Your task to perform on an android device: What's the news about the US? Image 0: 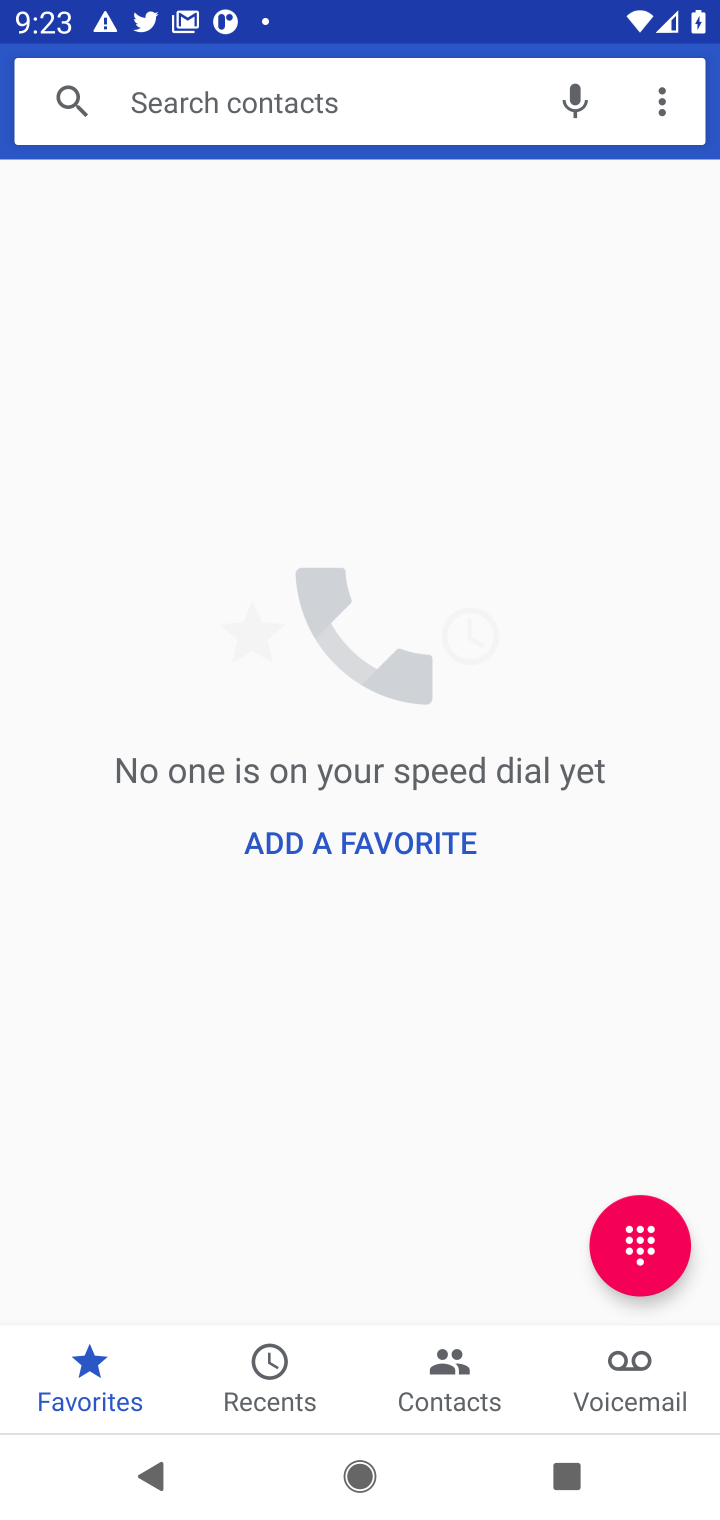
Step 0: press home button
Your task to perform on an android device: What's the news about the US? Image 1: 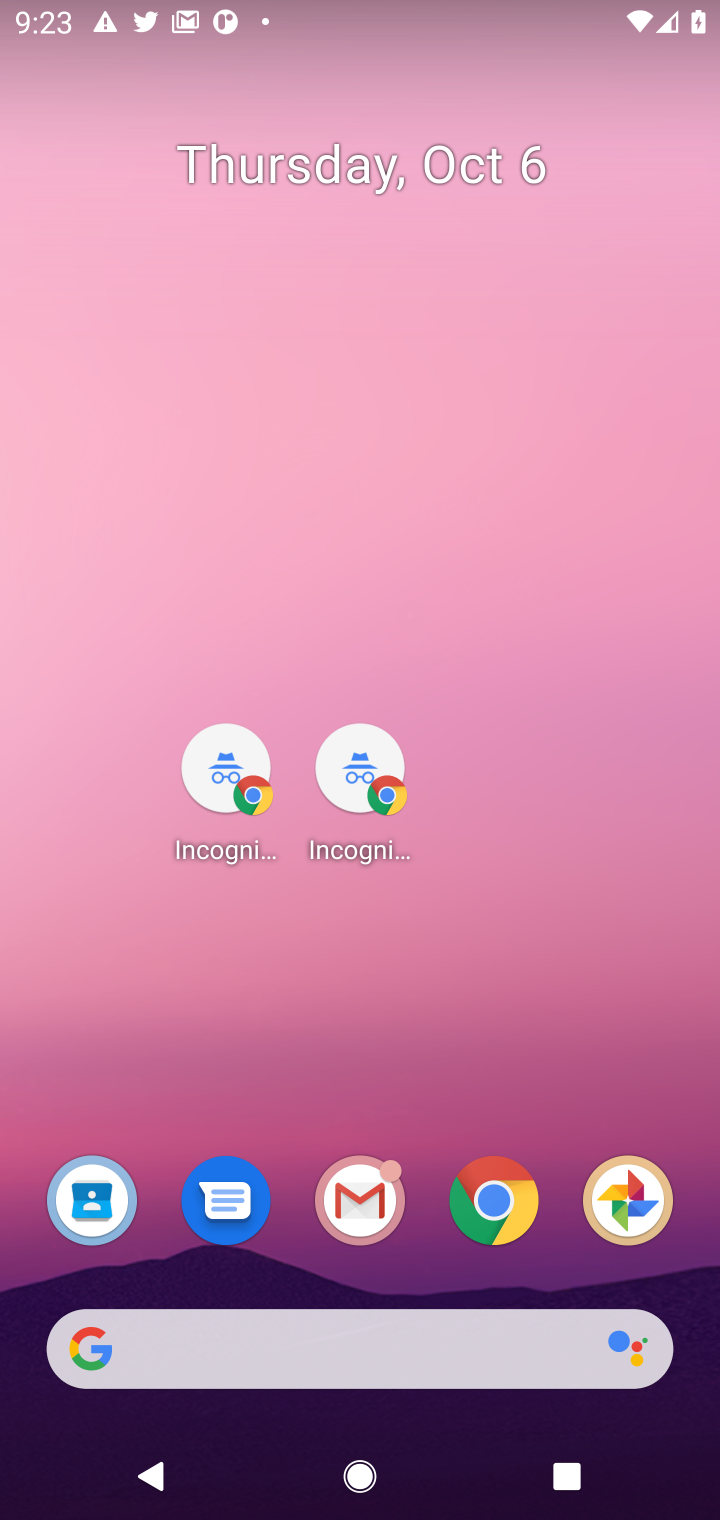
Step 1: click (494, 1211)
Your task to perform on an android device: What's the news about the US? Image 2: 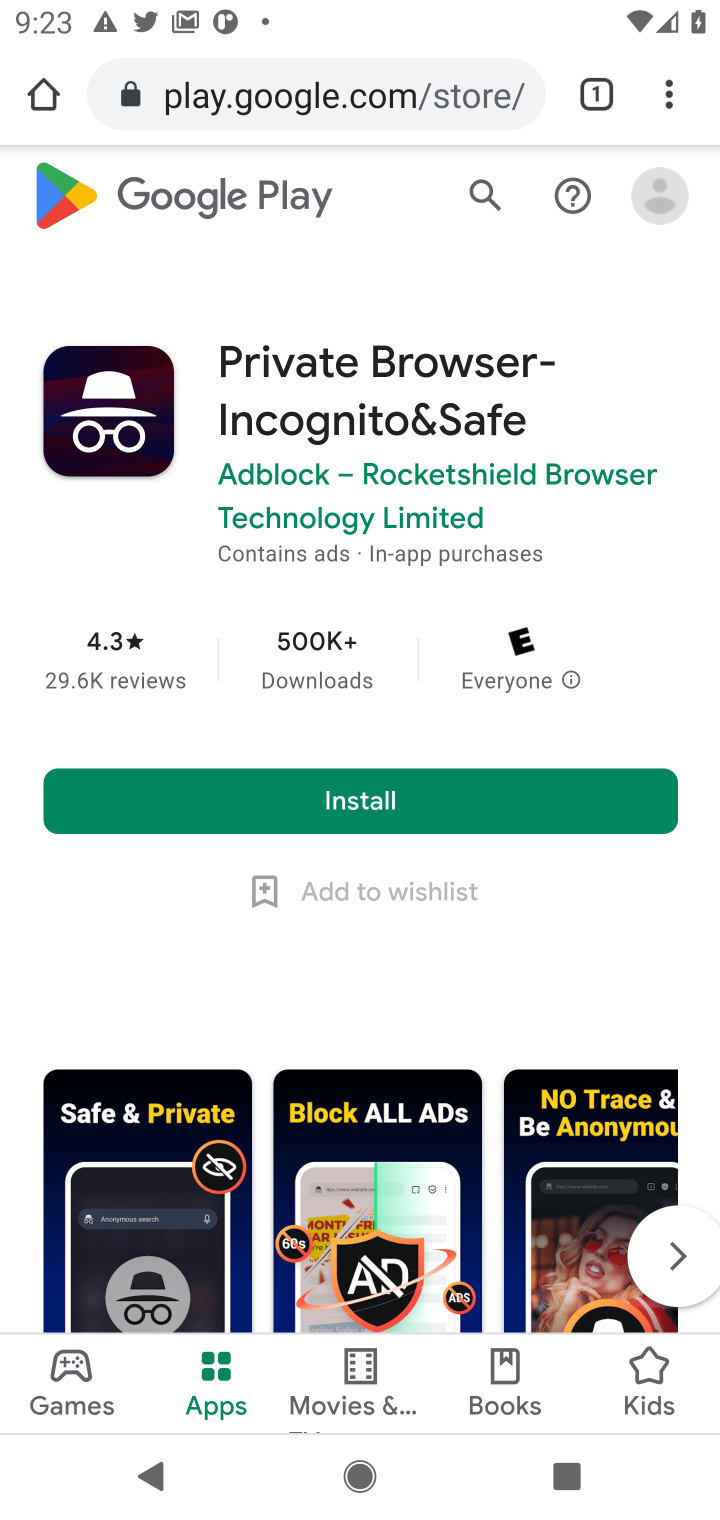
Step 2: click (412, 87)
Your task to perform on an android device: What's the news about the US? Image 3: 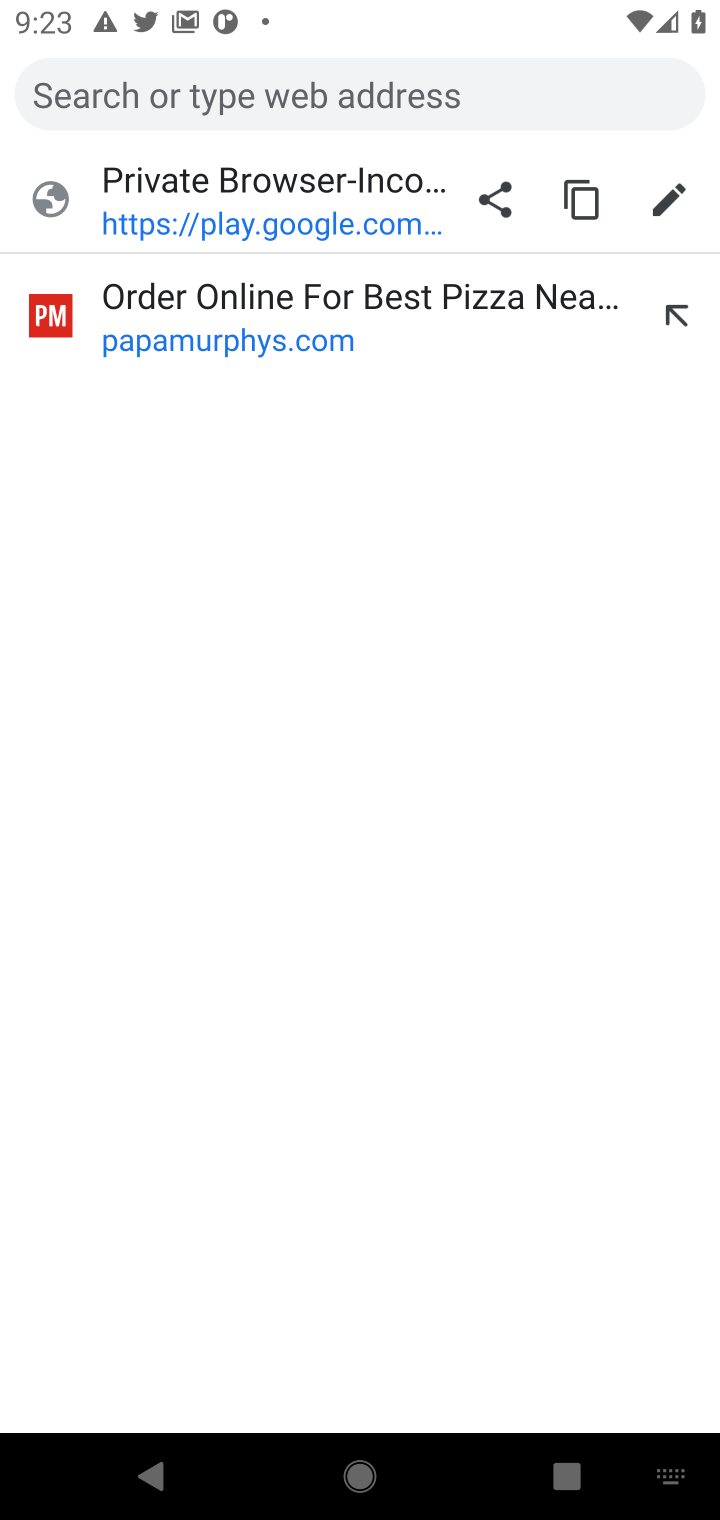
Step 3: type "whats the new about the us"
Your task to perform on an android device: What's the news about the US? Image 4: 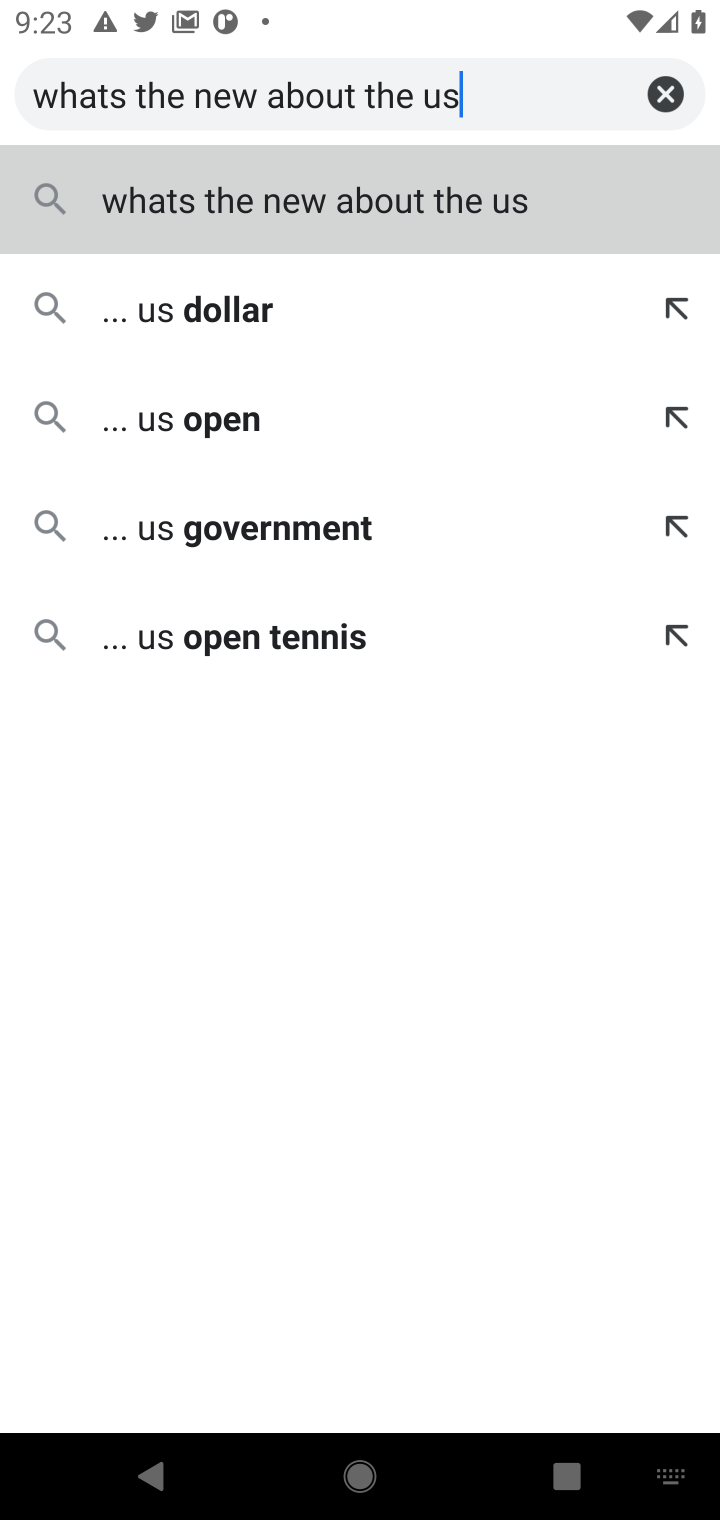
Step 4: click (155, 216)
Your task to perform on an android device: What's the news about the US? Image 5: 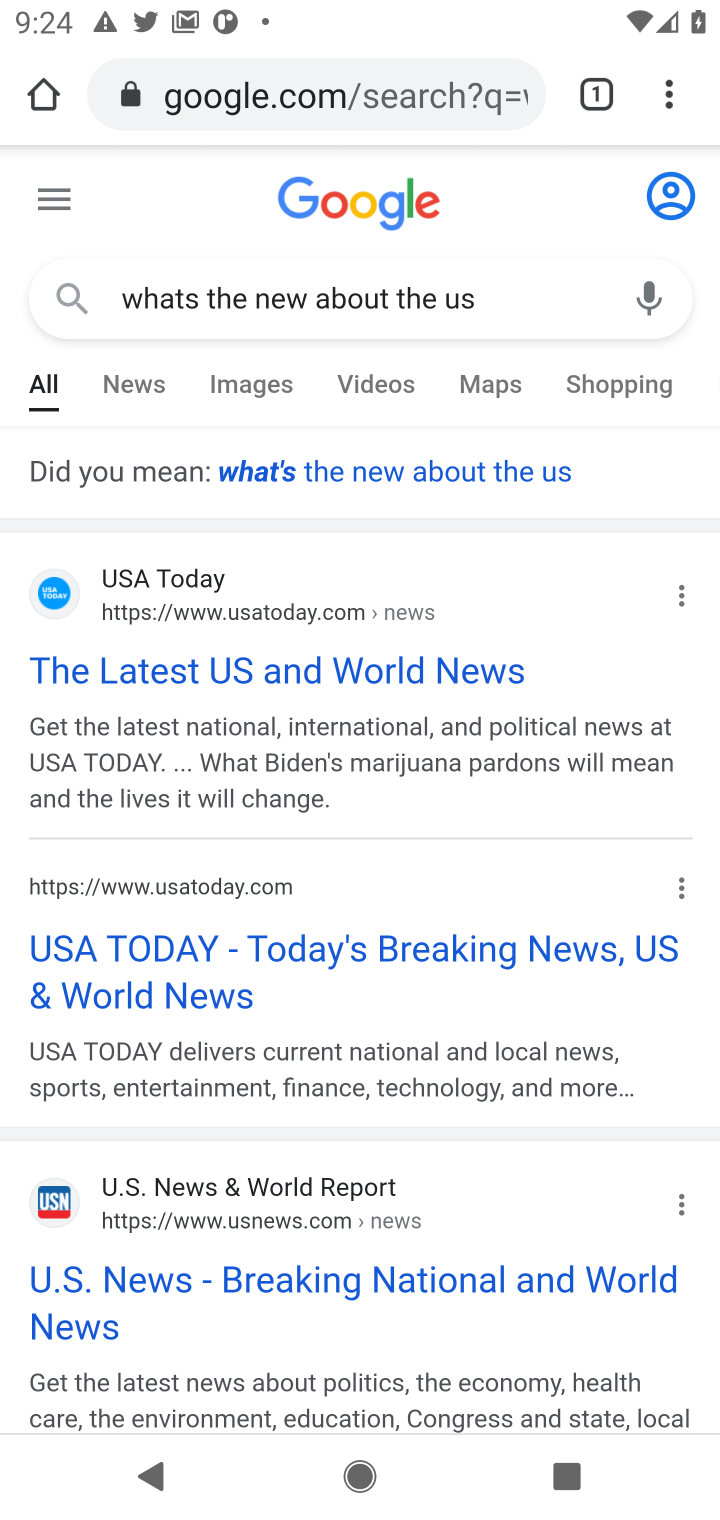
Step 5: click (137, 954)
Your task to perform on an android device: What's the news about the US? Image 6: 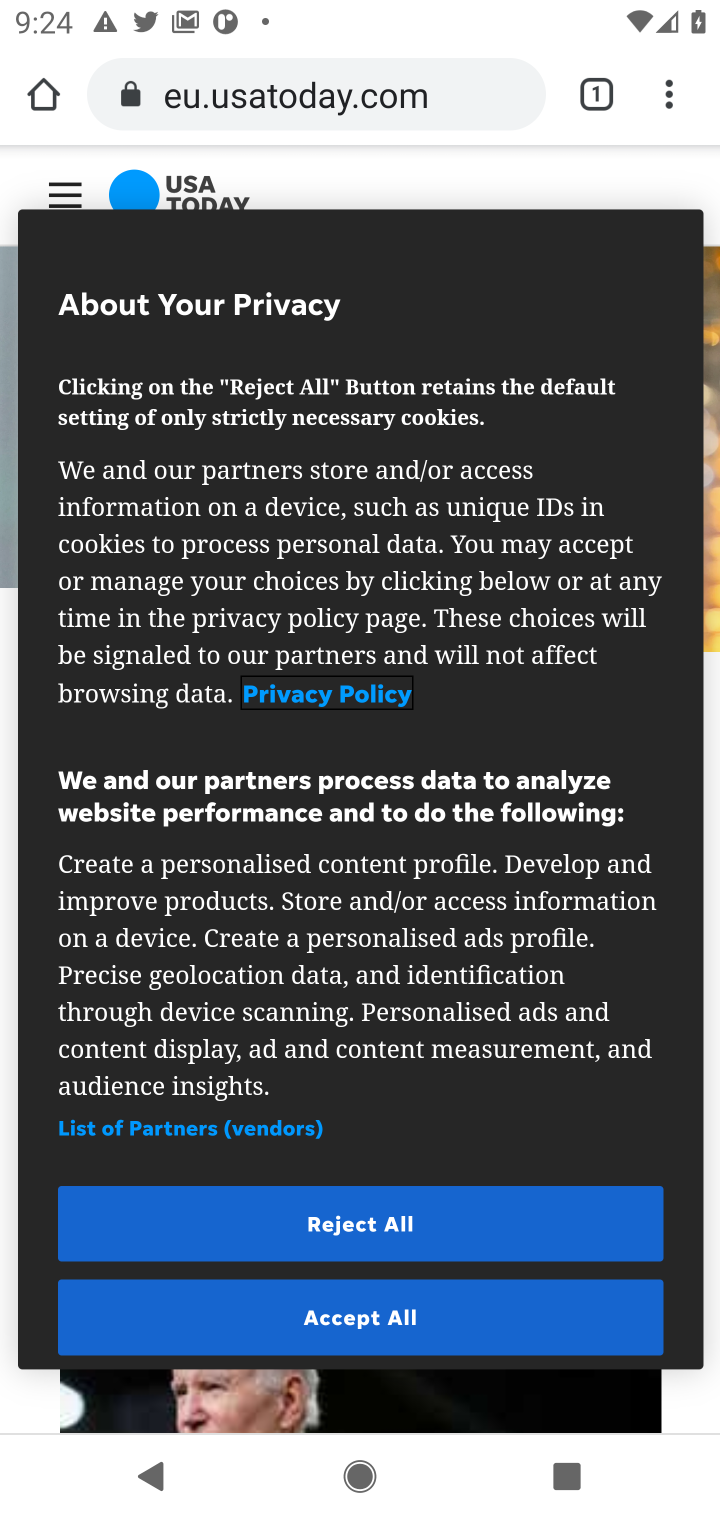
Step 6: click (344, 1236)
Your task to perform on an android device: What's the news about the US? Image 7: 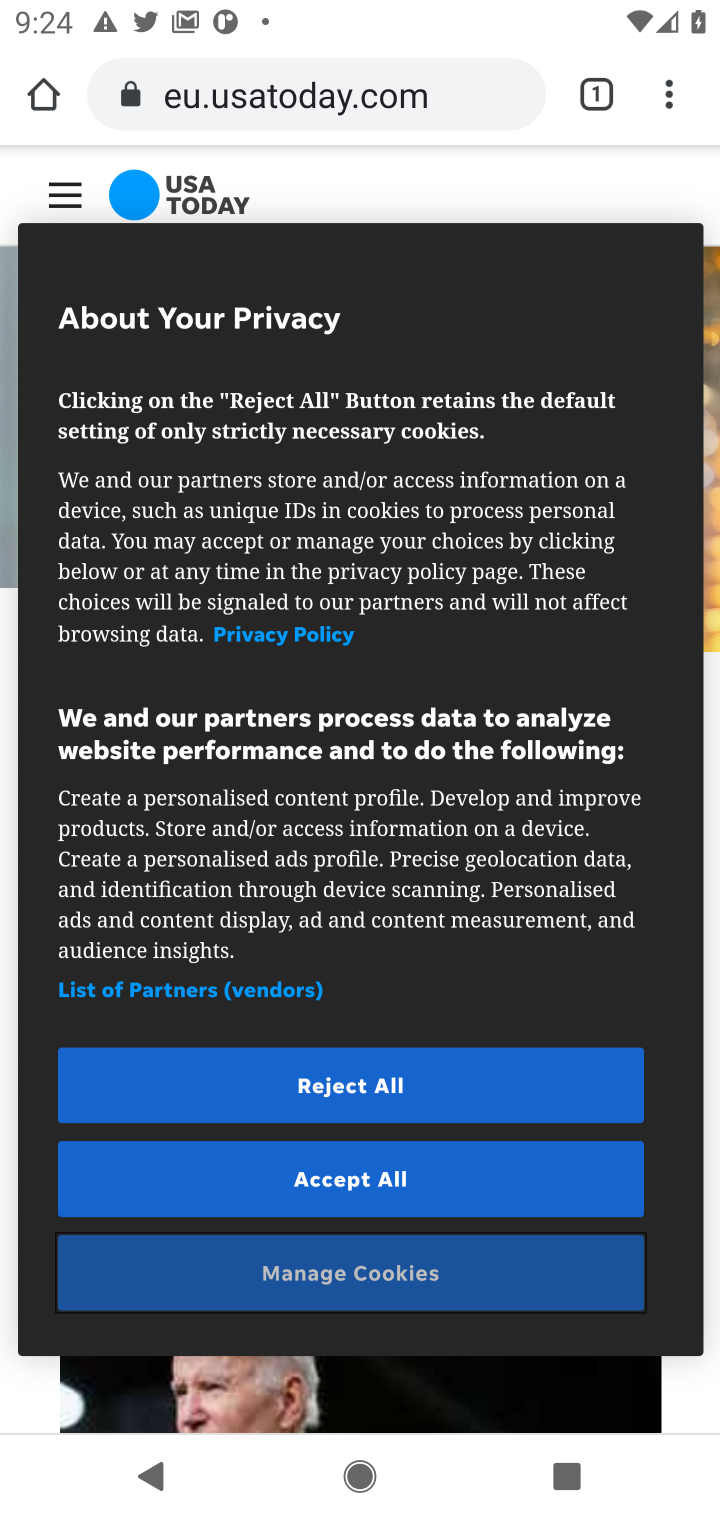
Step 7: click (402, 1084)
Your task to perform on an android device: What's the news about the US? Image 8: 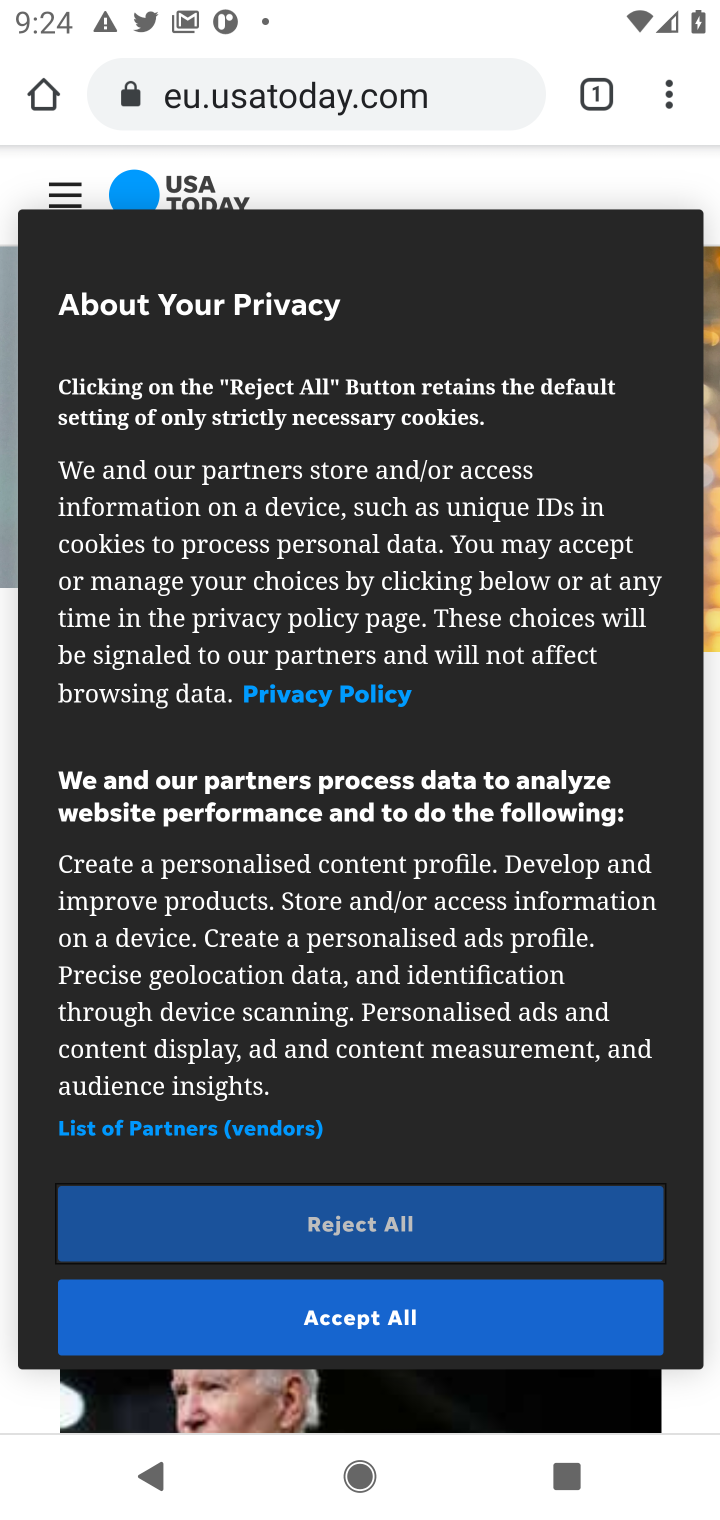
Step 8: click (286, 1329)
Your task to perform on an android device: What's the news about the US? Image 9: 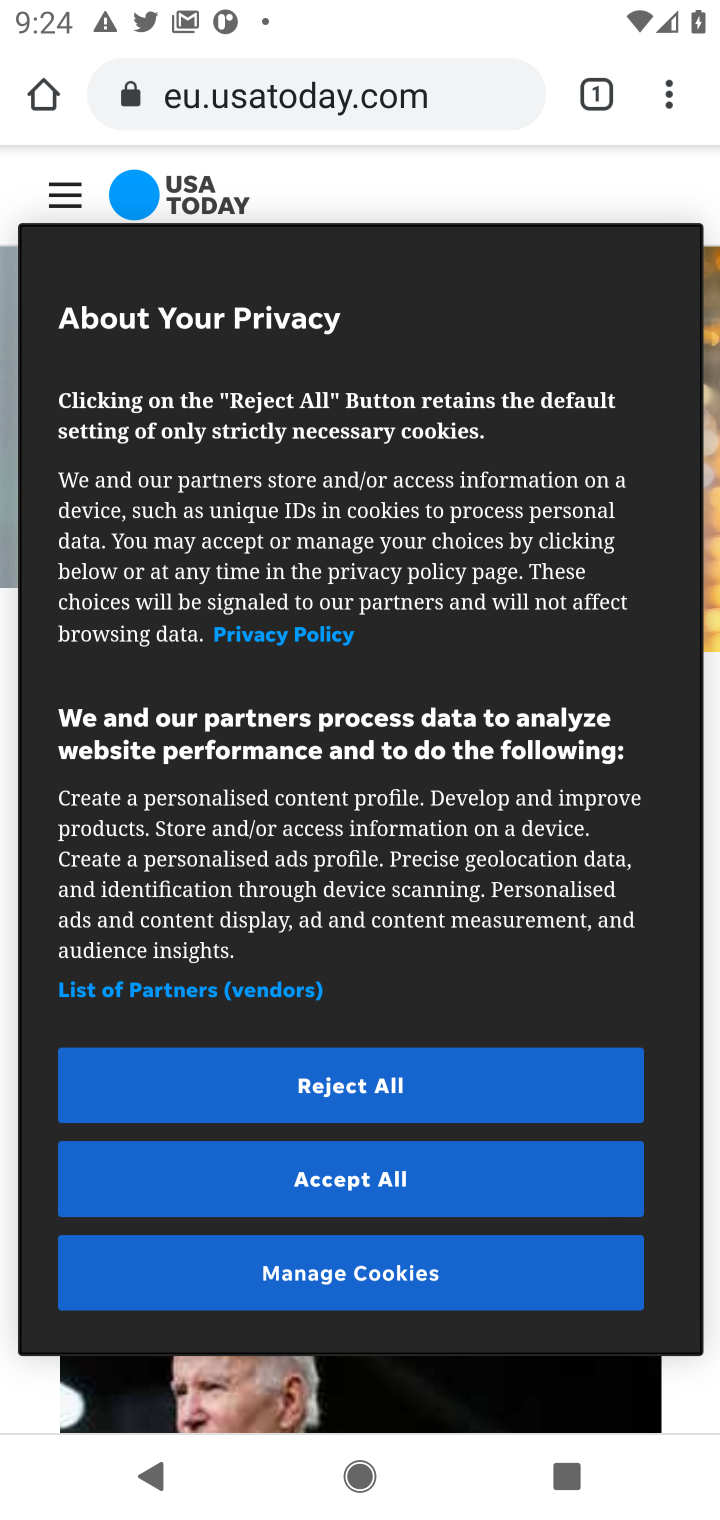
Step 9: click (286, 1282)
Your task to perform on an android device: What's the news about the US? Image 10: 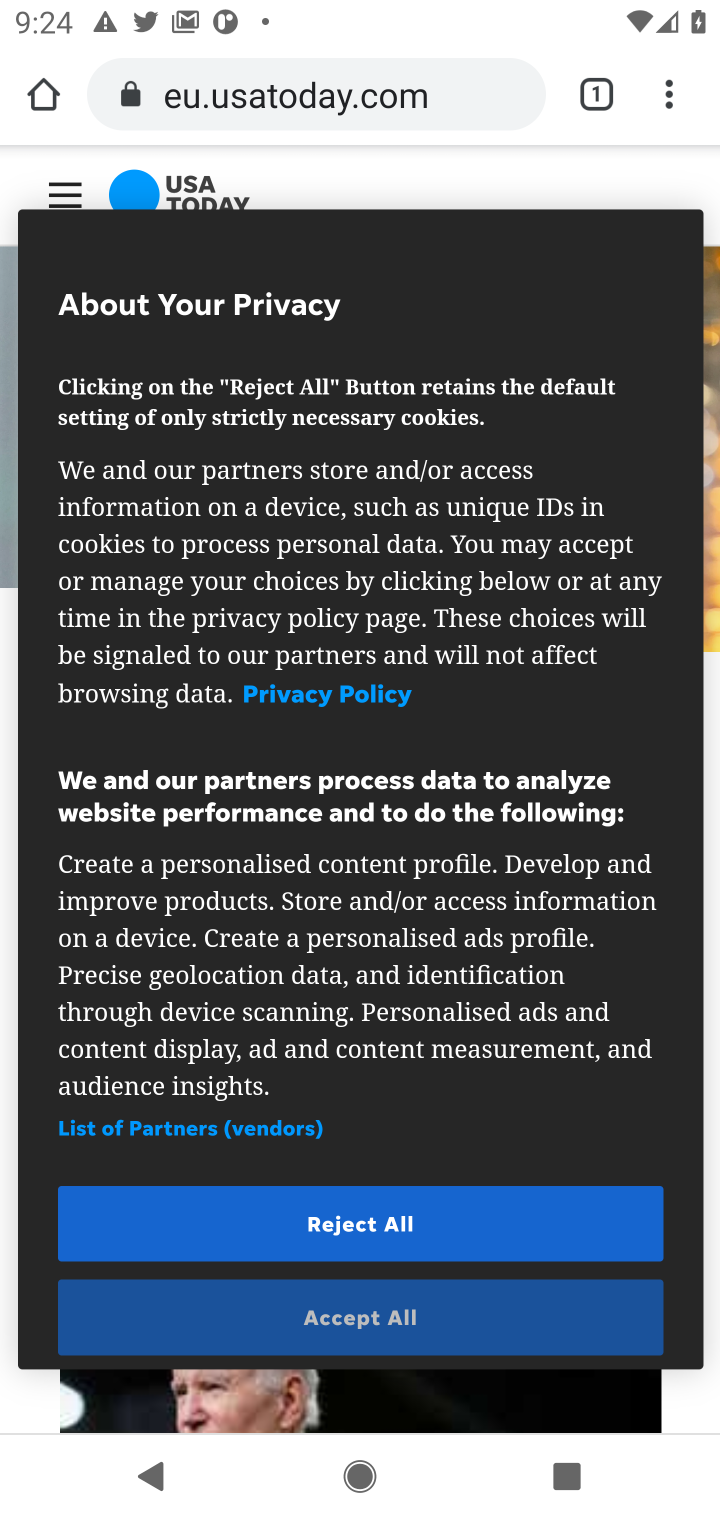
Step 10: click (342, 1325)
Your task to perform on an android device: What's the news about the US? Image 11: 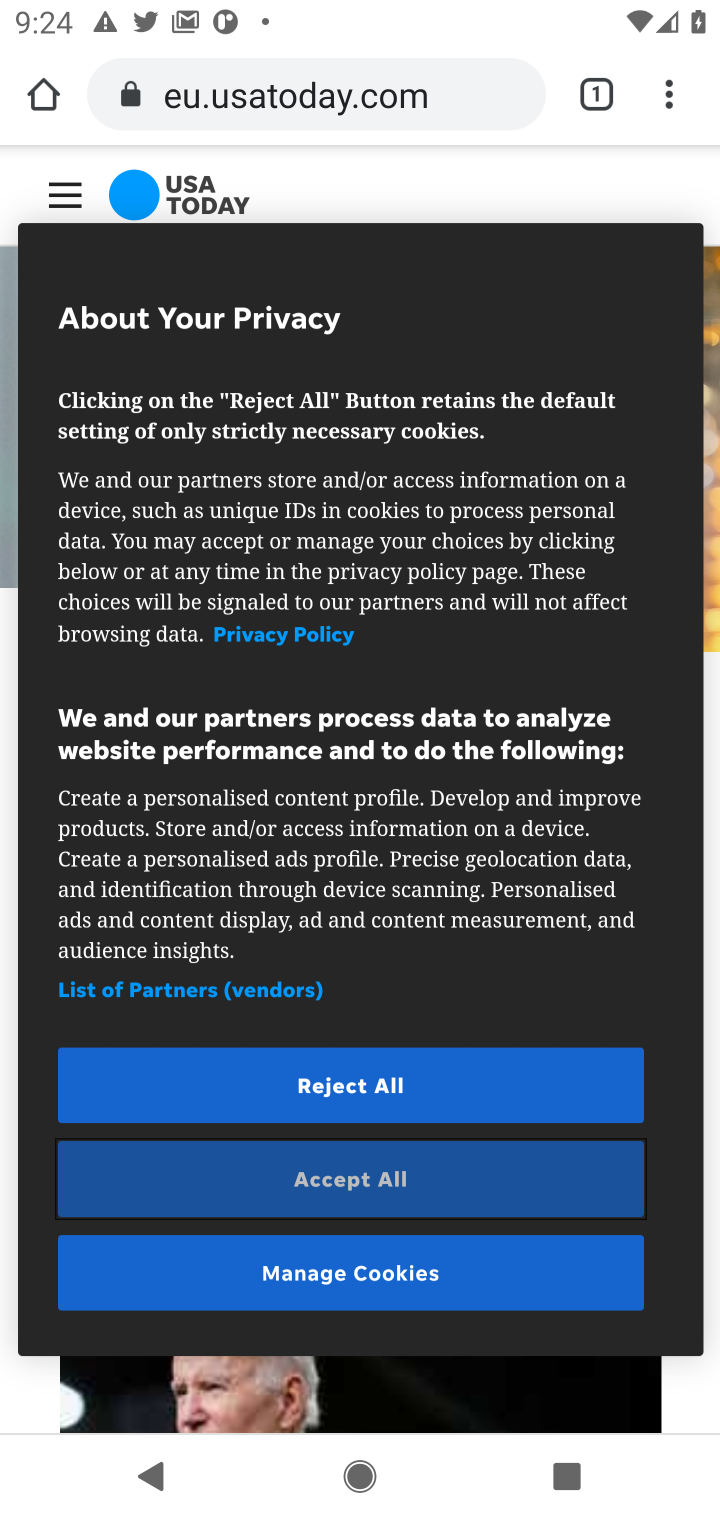
Step 11: click (399, 1098)
Your task to perform on an android device: What's the news about the US? Image 12: 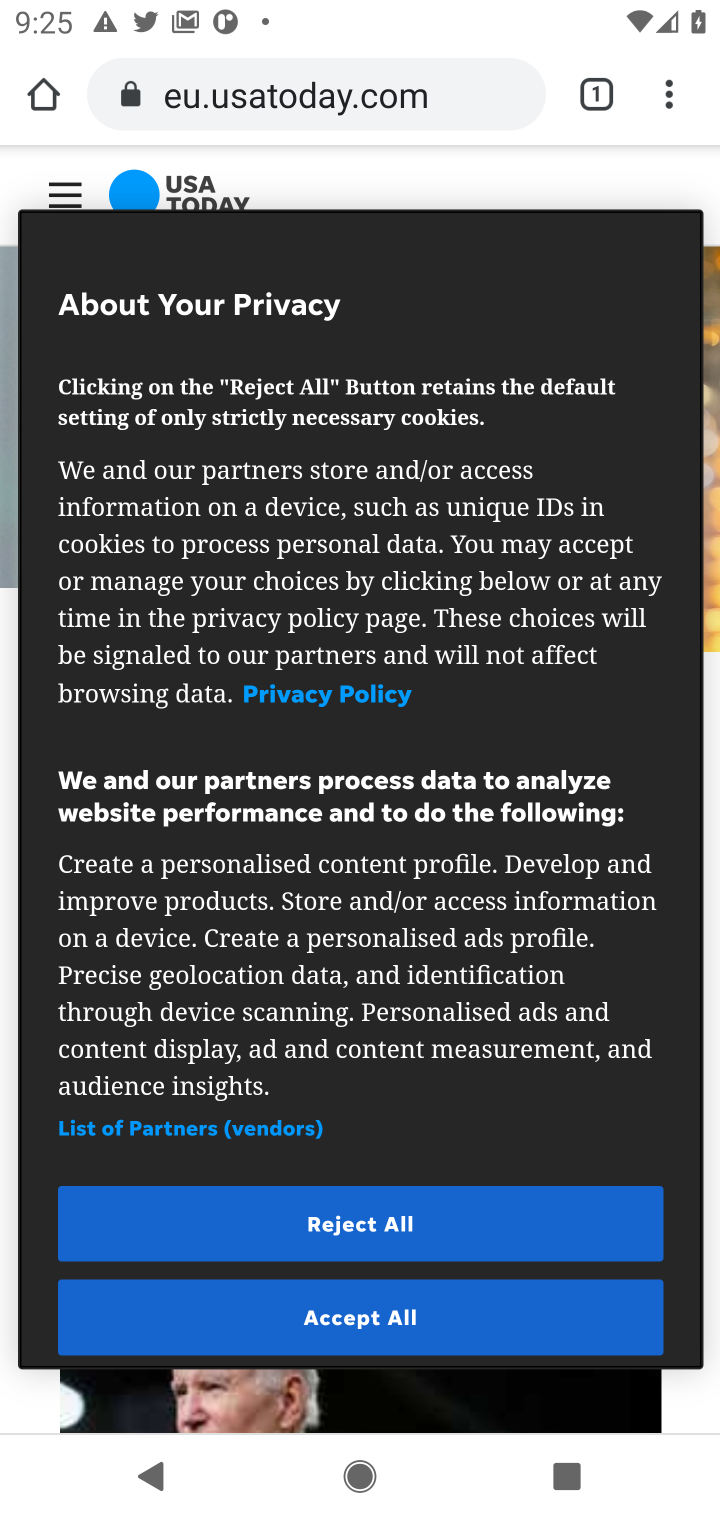
Step 12: click (307, 1314)
Your task to perform on an android device: What's the news about the US? Image 13: 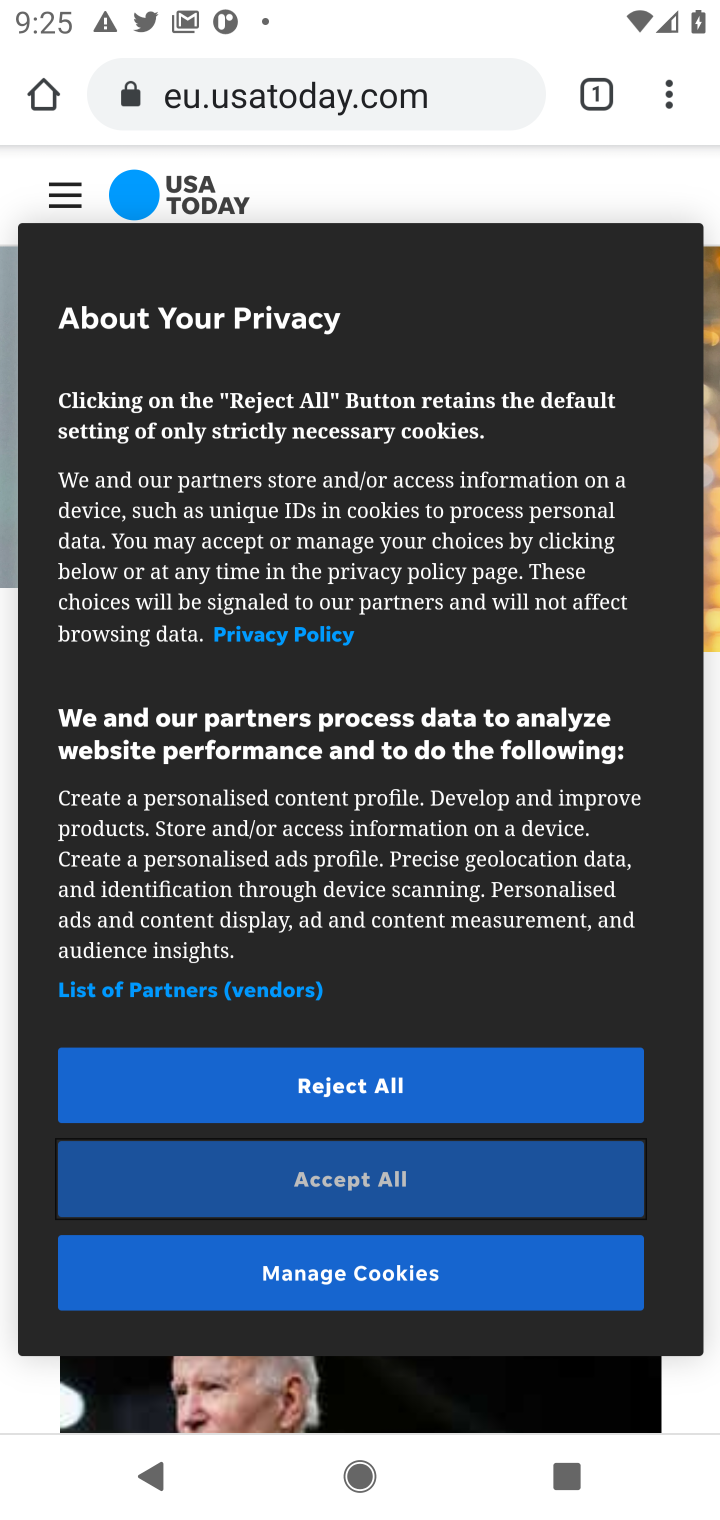
Step 13: click (353, 1088)
Your task to perform on an android device: What's the news about the US? Image 14: 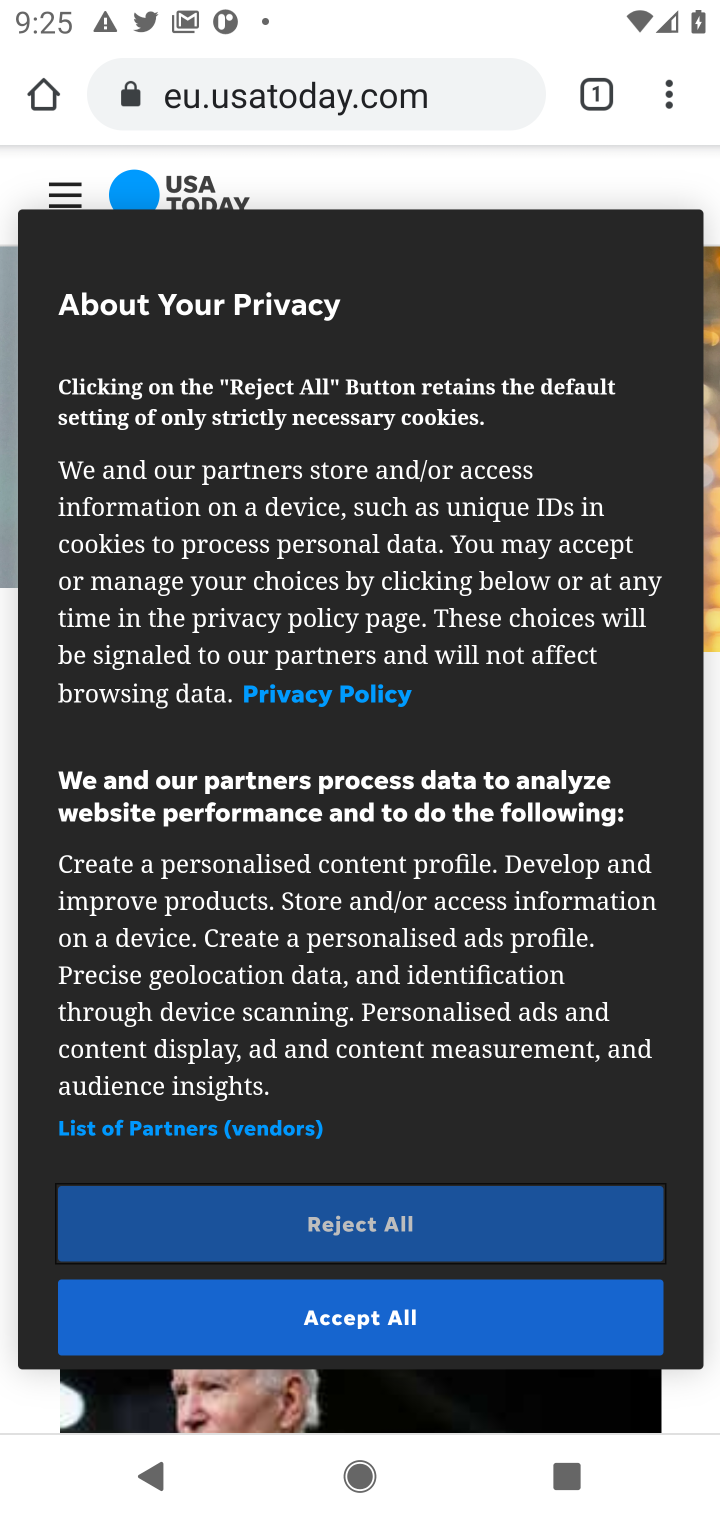
Step 14: click (383, 1319)
Your task to perform on an android device: What's the news about the US? Image 15: 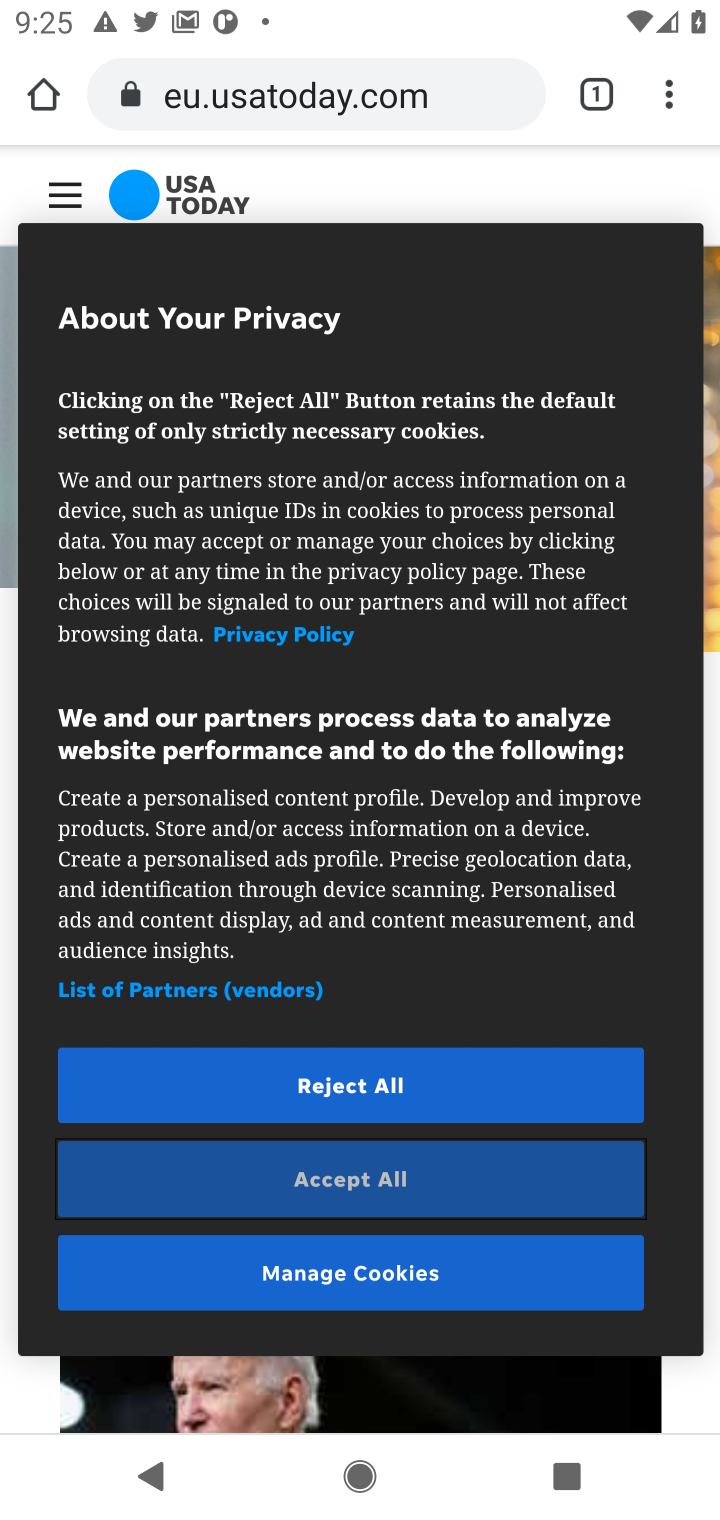
Step 15: click (324, 1182)
Your task to perform on an android device: What's the news about the US? Image 16: 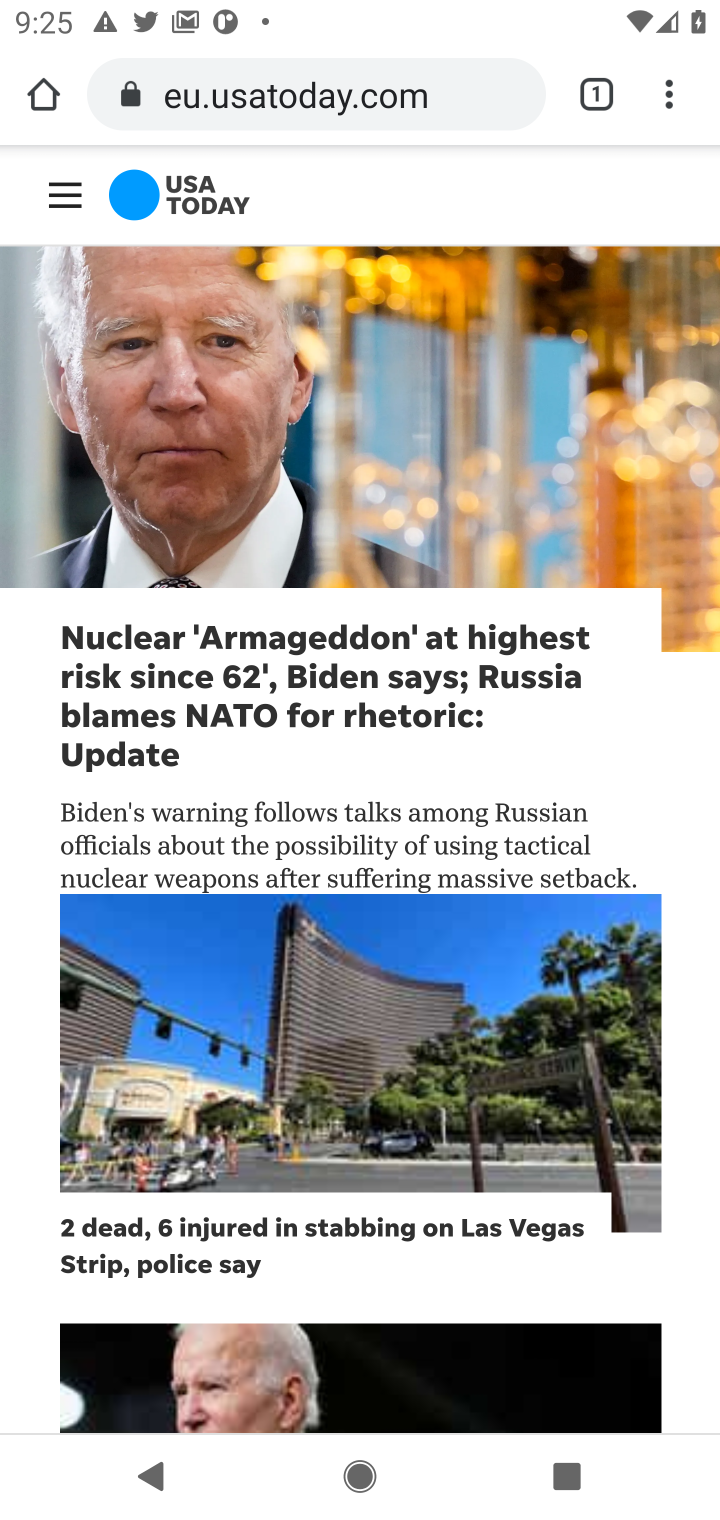
Step 16: task complete